Your task to perform on an android device: turn on airplane mode Image 0: 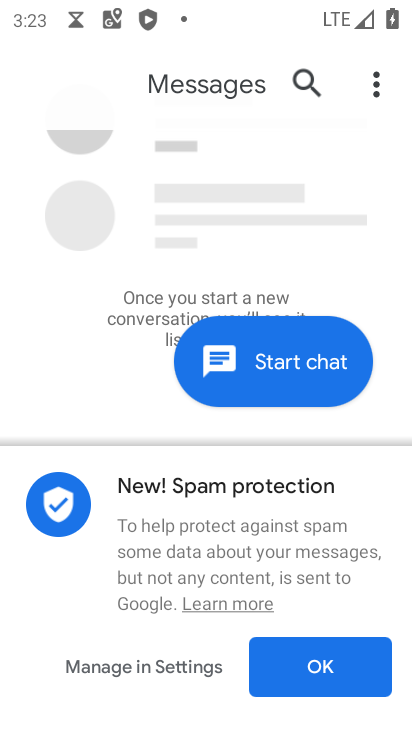
Step 0: press home button
Your task to perform on an android device: turn on airplane mode Image 1: 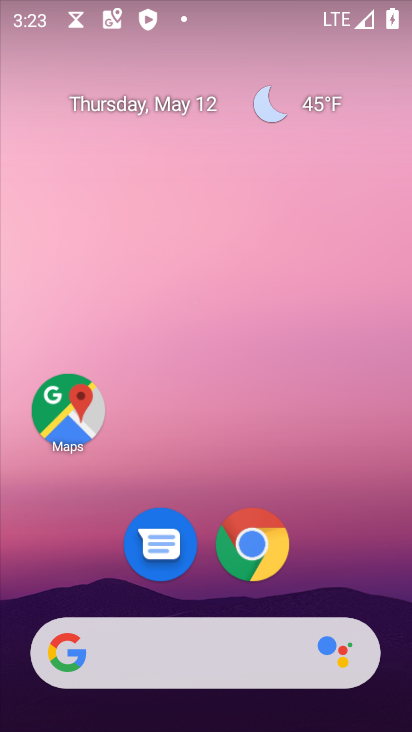
Step 1: drag from (319, 574) to (294, 87)
Your task to perform on an android device: turn on airplane mode Image 2: 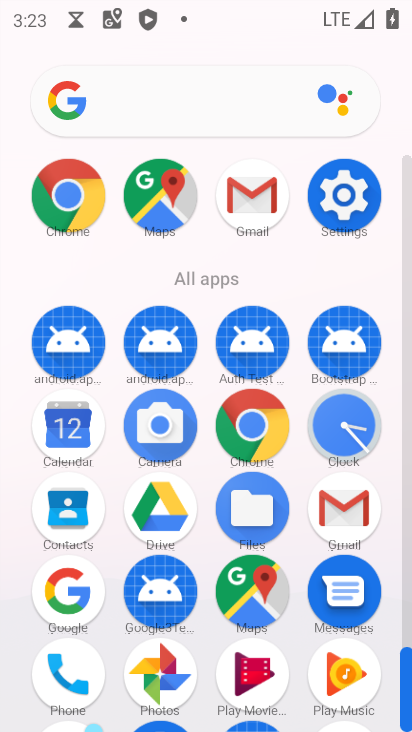
Step 2: click (359, 204)
Your task to perform on an android device: turn on airplane mode Image 3: 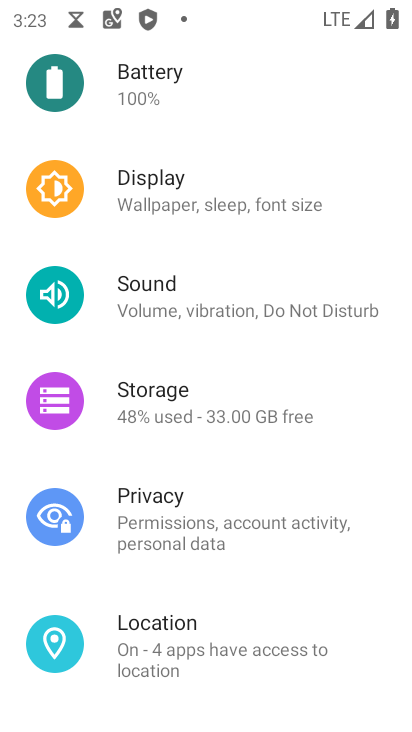
Step 3: drag from (233, 269) to (290, 422)
Your task to perform on an android device: turn on airplane mode Image 4: 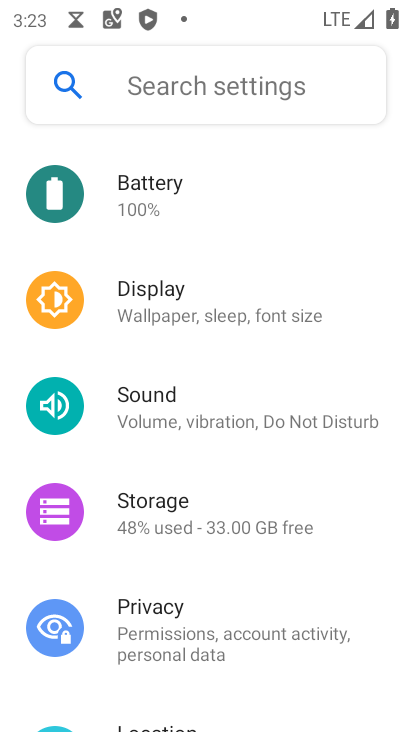
Step 4: drag from (255, 249) to (334, 410)
Your task to perform on an android device: turn on airplane mode Image 5: 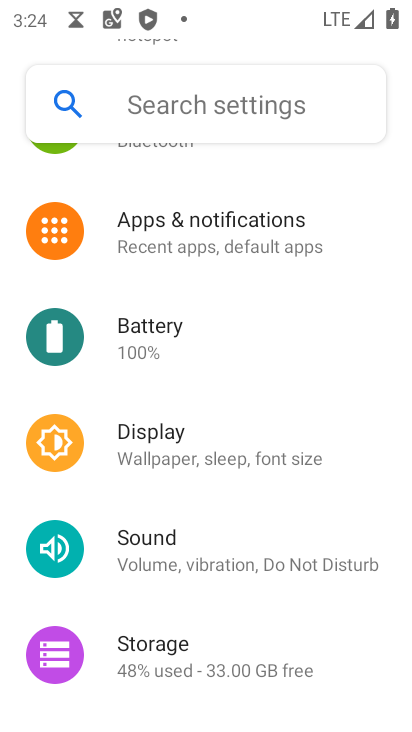
Step 5: drag from (309, 285) to (321, 459)
Your task to perform on an android device: turn on airplane mode Image 6: 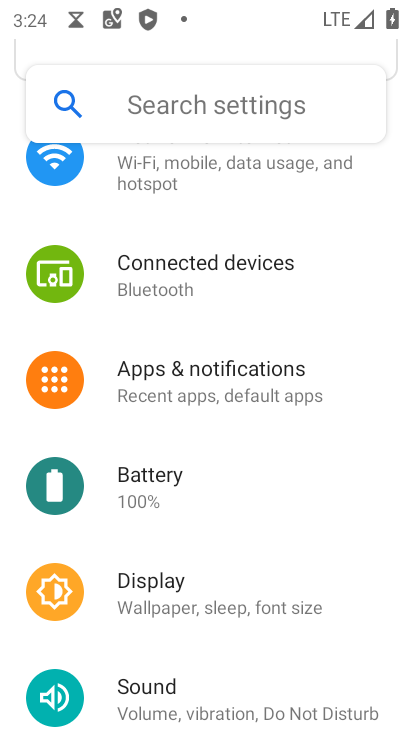
Step 6: drag from (279, 276) to (300, 441)
Your task to perform on an android device: turn on airplane mode Image 7: 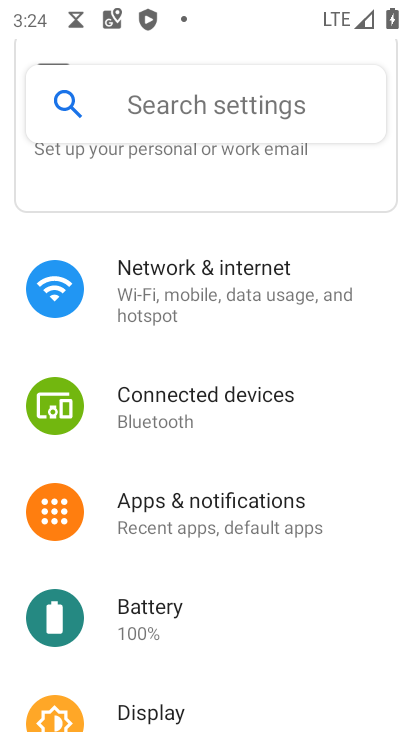
Step 7: click (252, 310)
Your task to perform on an android device: turn on airplane mode Image 8: 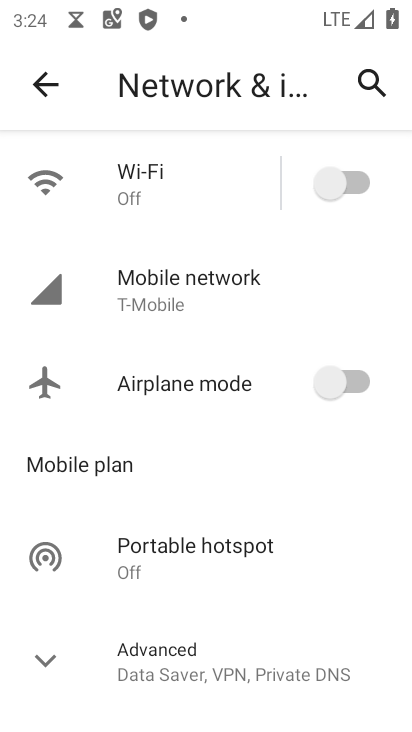
Step 8: click (341, 378)
Your task to perform on an android device: turn on airplane mode Image 9: 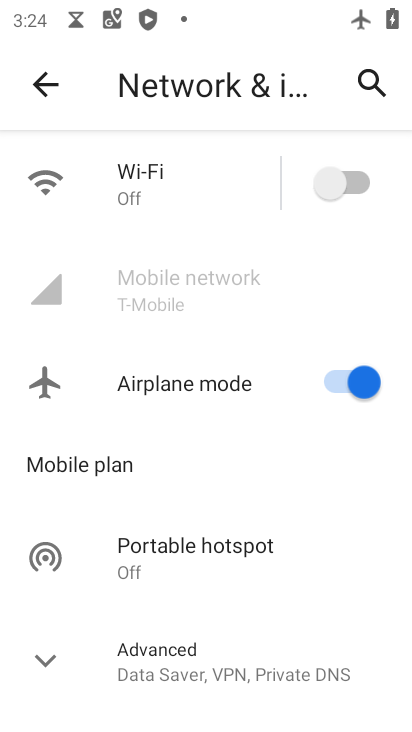
Step 9: task complete